Your task to perform on an android device: set default search engine in the chrome app Image 0: 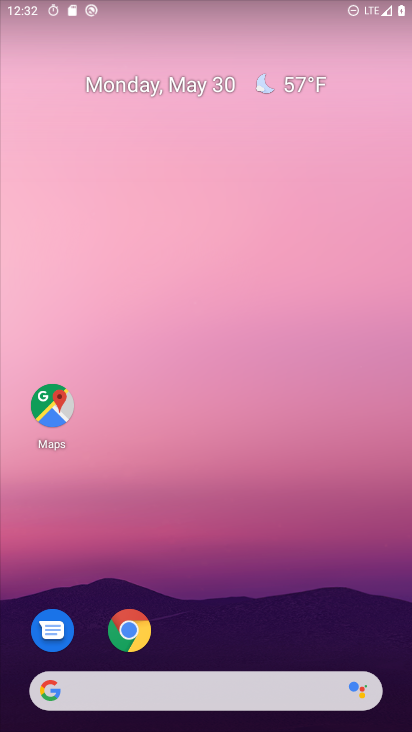
Step 0: drag from (301, 709) to (187, 87)
Your task to perform on an android device: set default search engine in the chrome app Image 1: 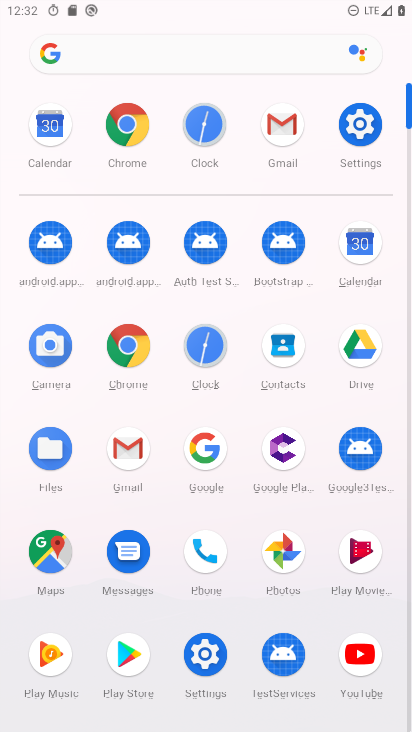
Step 1: click (120, 140)
Your task to perform on an android device: set default search engine in the chrome app Image 2: 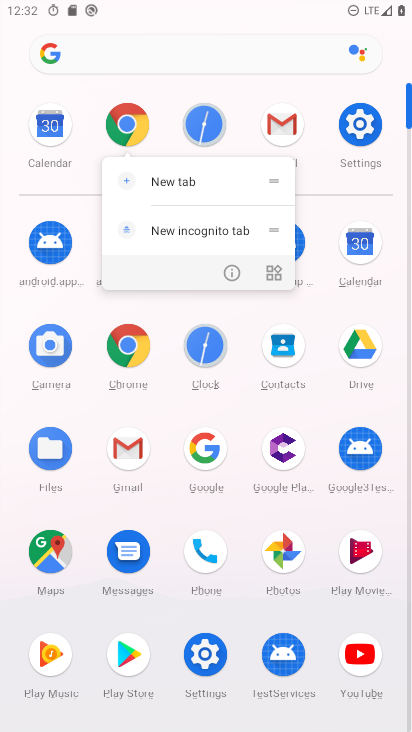
Step 2: click (146, 124)
Your task to perform on an android device: set default search engine in the chrome app Image 3: 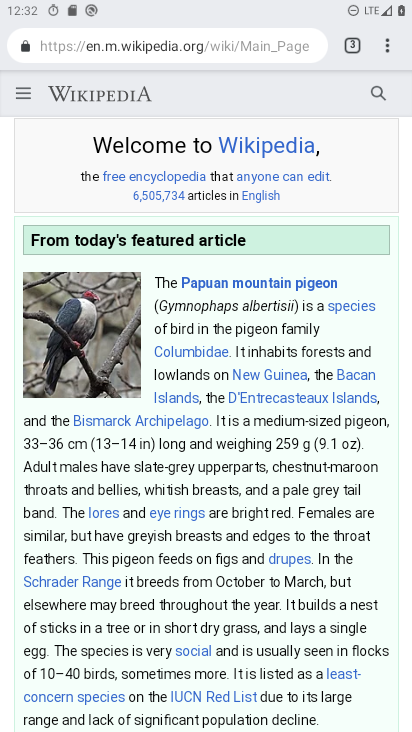
Step 3: click (385, 55)
Your task to perform on an android device: set default search engine in the chrome app Image 4: 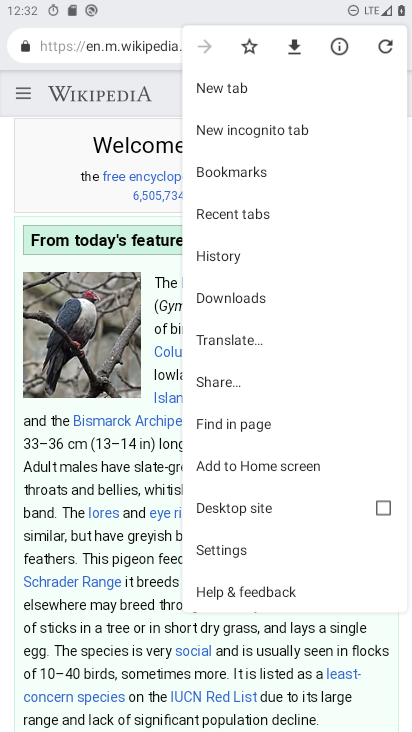
Step 4: click (229, 548)
Your task to perform on an android device: set default search engine in the chrome app Image 5: 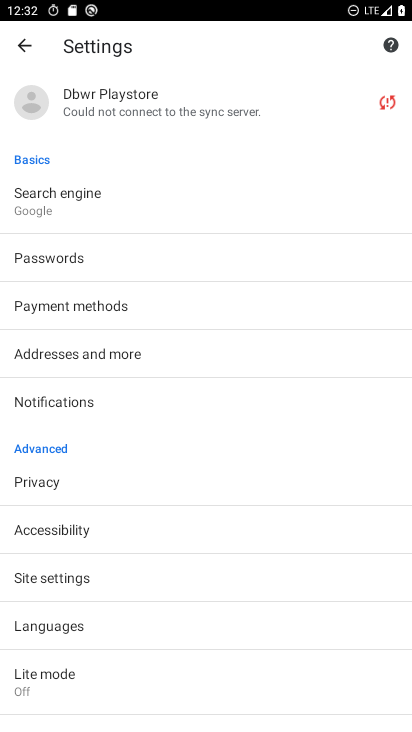
Step 5: click (70, 198)
Your task to perform on an android device: set default search engine in the chrome app Image 6: 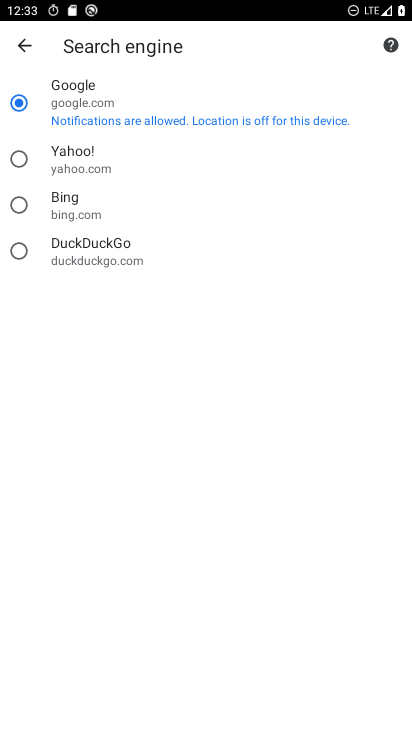
Step 6: task complete